Your task to perform on an android device: turn off javascript in the chrome app Image 0: 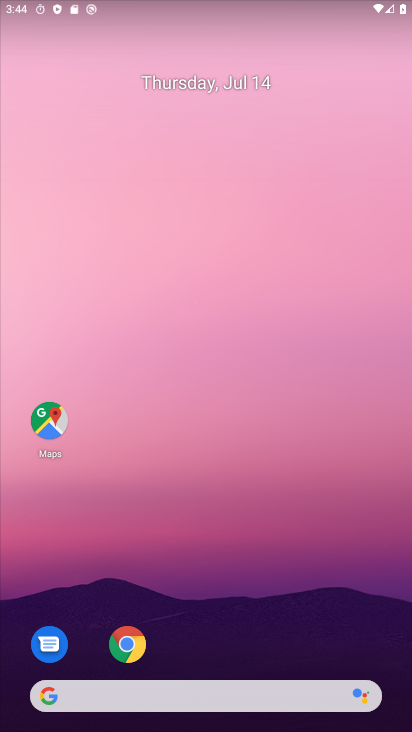
Step 0: click (123, 647)
Your task to perform on an android device: turn off javascript in the chrome app Image 1: 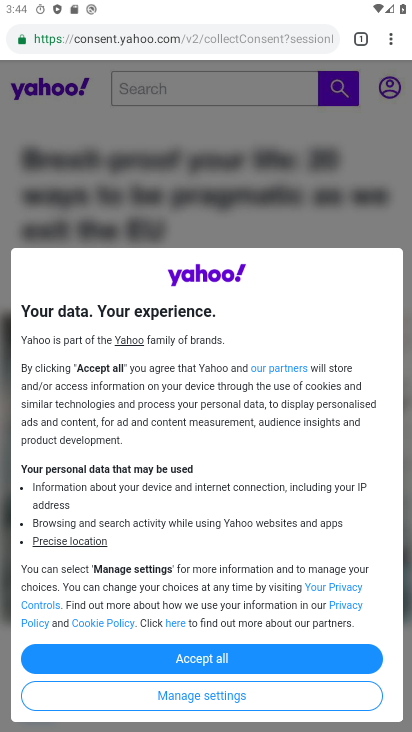
Step 1: drag from (392, 25) to (257, 464)
Your task to perform on an android device: turn off javascript in the chrome app Image 2: 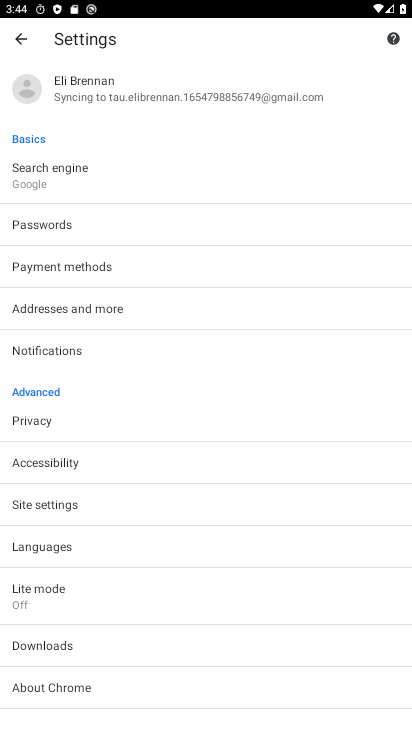
Step 2: click (42, 512)
Your task to perform on an android device: turn off javascript in the chrome app Image 3: 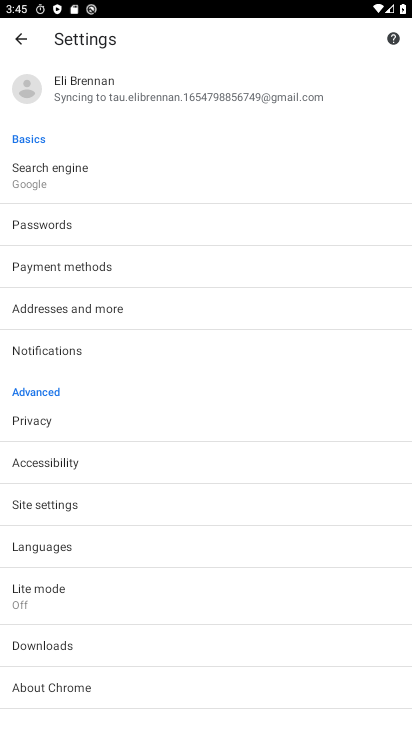
Step 3: click (54, 507)
Your task to perform on an android device: turn off javascript in the chrome app Image 4: 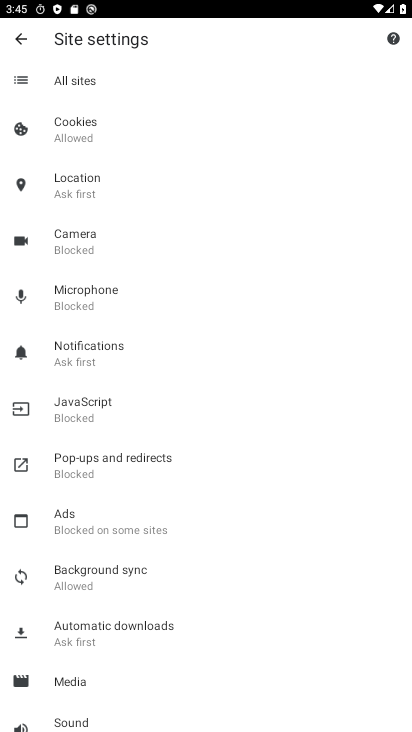
Step 4: click (91, 406)
Your task to perform on an android device: turn off javascript in the chrome app Image 5: 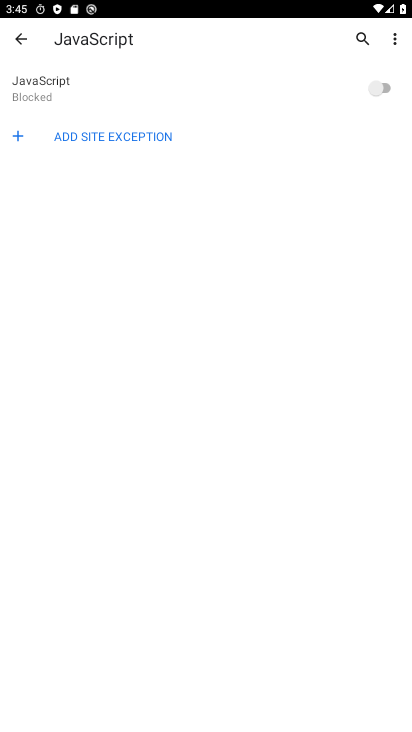
Step 5: task complete